Your task to perform on an android device: Go to Wikipedia Image 0: 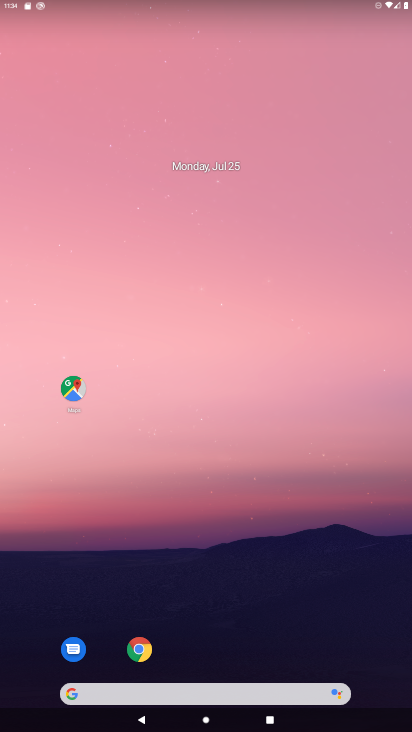
Step 0: click (140, 652)
Your task to perform on an android device: Go to Wikipedia Image 1: 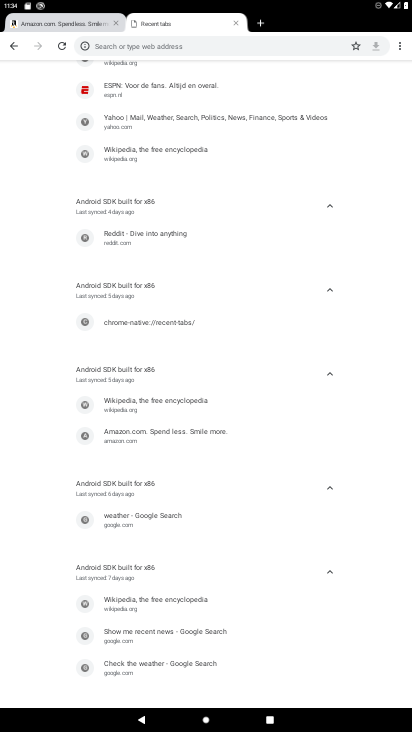
Step 1: click (149, 45)
Your task to perform on an android device: Go to Wikipedia Image 2: 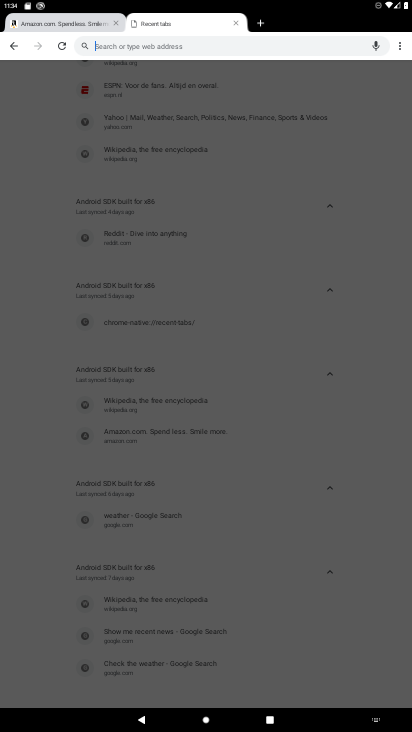
Step 2: type "wikipedia"
Your task to perform on an android device: Go to Wikipedia Image 3: 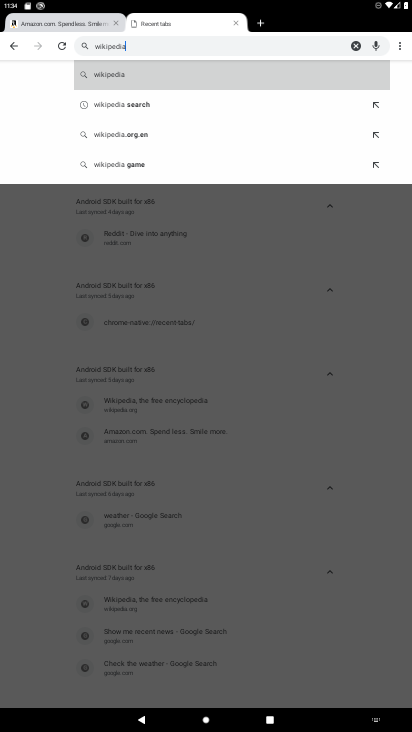
Step 3: click (104, 70)
Your task to perform on an android device: Go to Wikipedia Image 4: 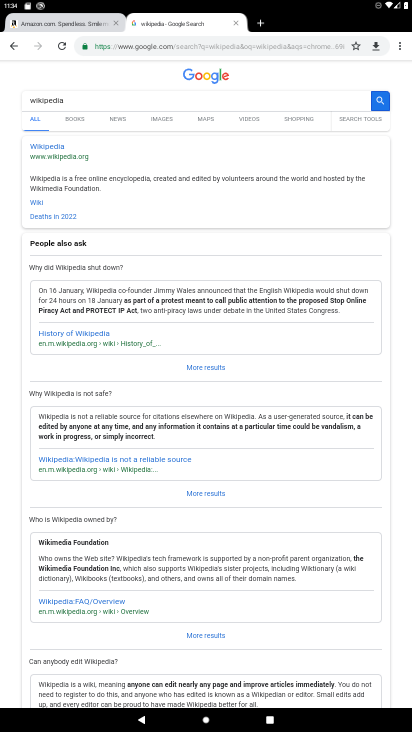
Step 4: click (57, 146)
Your task to perform on an android device: Go to Wikipedia Image 5: 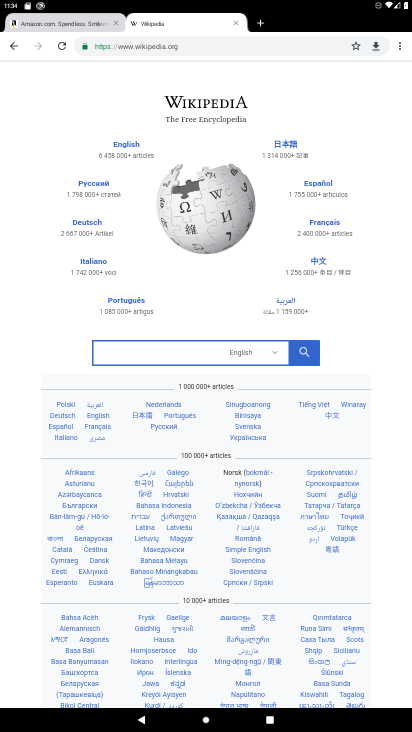
Step 5: task complete